Your task to perform on an android device: Open Android settings Image 0: 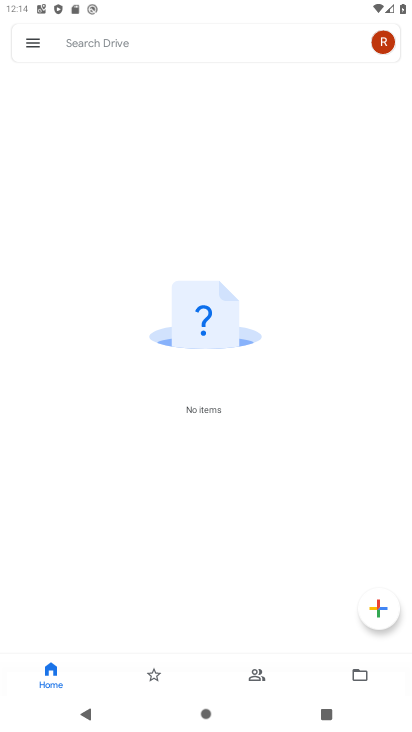
Step 0: press home button
Your task to perform on an android device: Open Android settings Image 1: 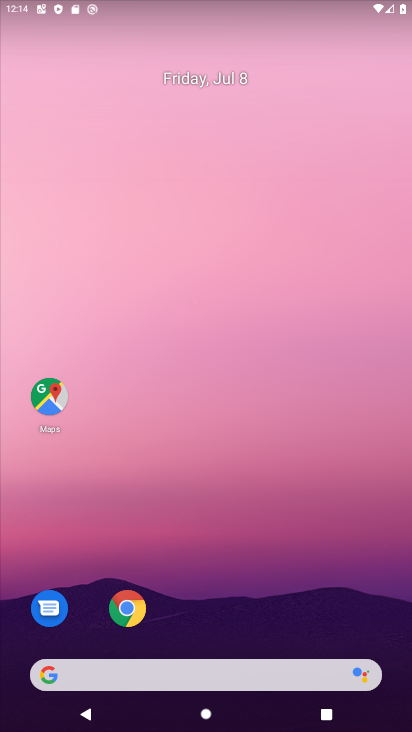
Step 1: drag from (204, 560) to (285, 1)
Your task to perform on an android device: Open Android settings Image 2: 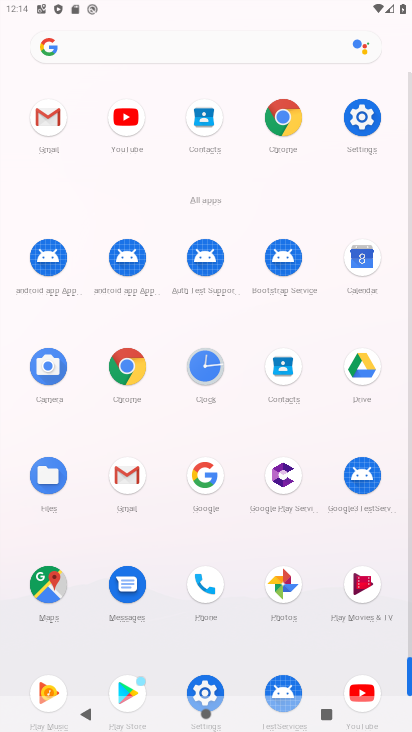
Step 2: click (353, 128)
Your task to perform on an android device: Open Android settings Image 3: 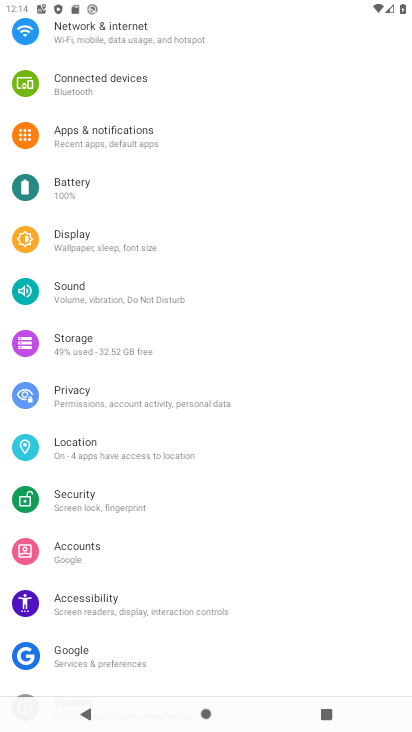
Step 3: drag from (190, 596) to (140, 0)
Your task to perform on an android device: Open Android settings Image 4: 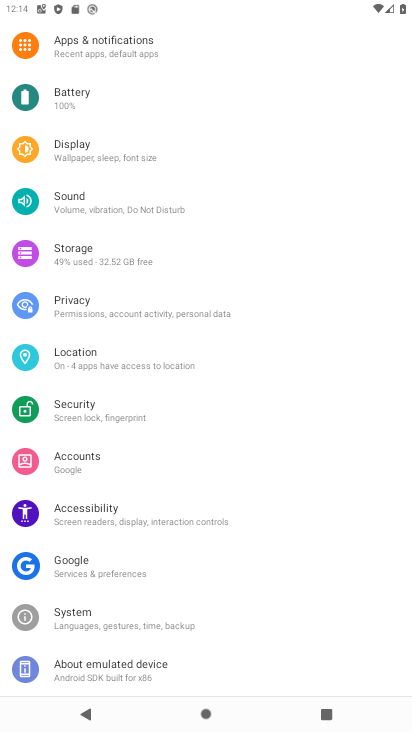
Step 4: click (93, 669)
Your task to perform on an android device: Open Android settings Image 5: 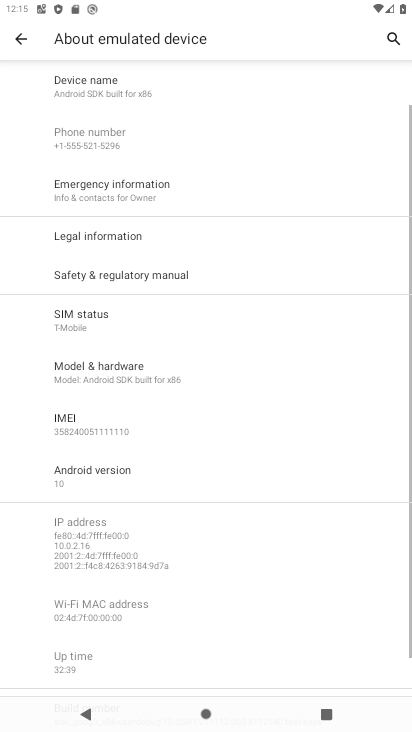
Step 5: click (113, 467)
Your task to perform on an android device: Open Android settings Image 6: 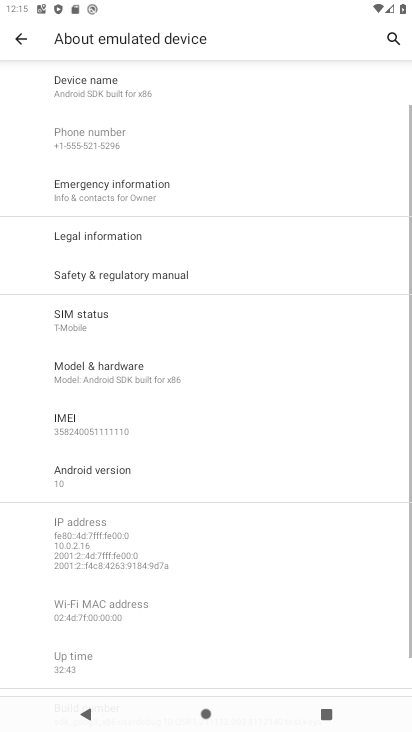
Step 6: click (114, 467)
Your task to perform on an android device: Open Android settings Image 7: 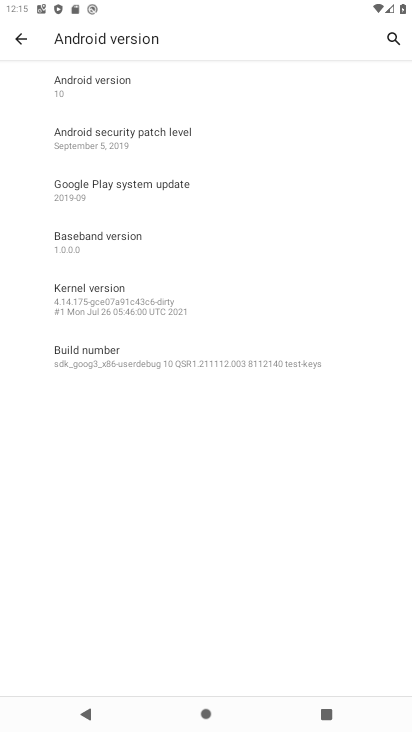
Step 7: task complete